Your task to perform on an android device: install app "Walmart Shopping & Grocery" Image 0: 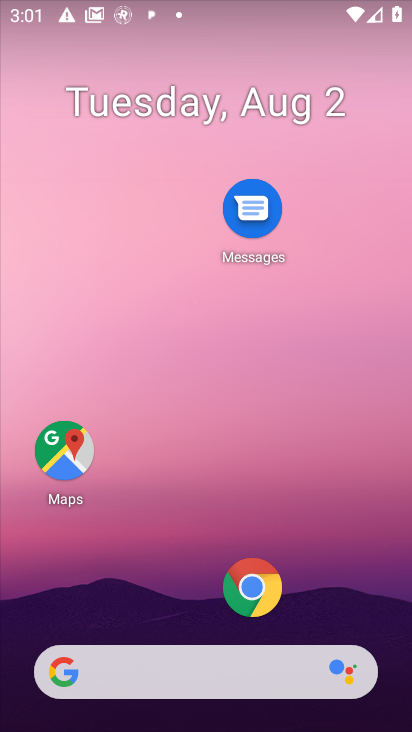
Step 0: drag from (193, 613) to (219, 219)
Your task to perform on an android device: install app "Walmart Shopping & Grocery" Image 1: 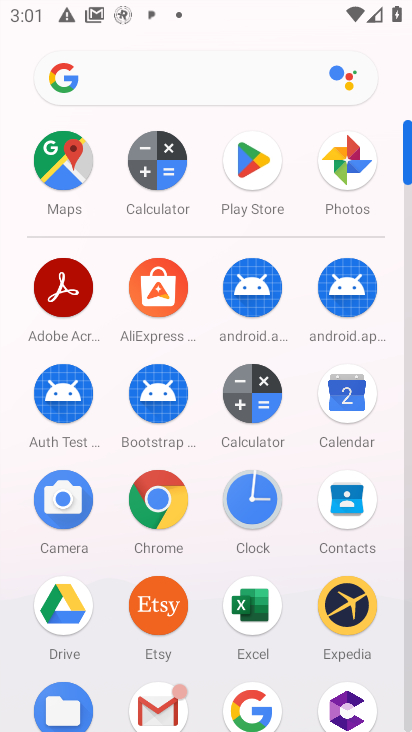
Step 1: click (247, 179)
Your task to perform on an android device: install app "Walmart Shopping & Grocery" Image 2: 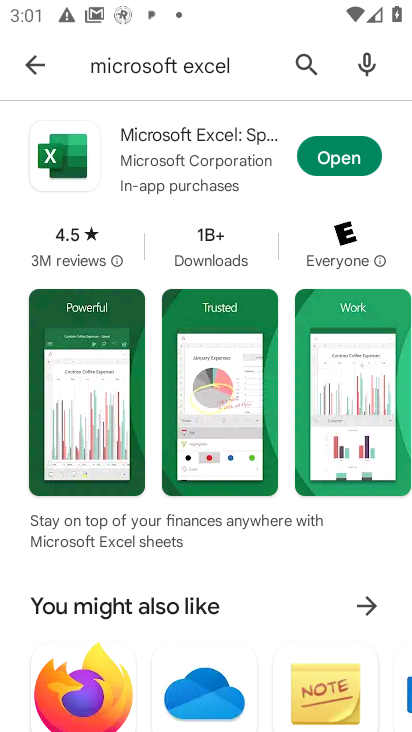
Step 2: click (293, 54)
Your task to perform on an android device: install app "Walmart Shopping & Grocery" Image 3: 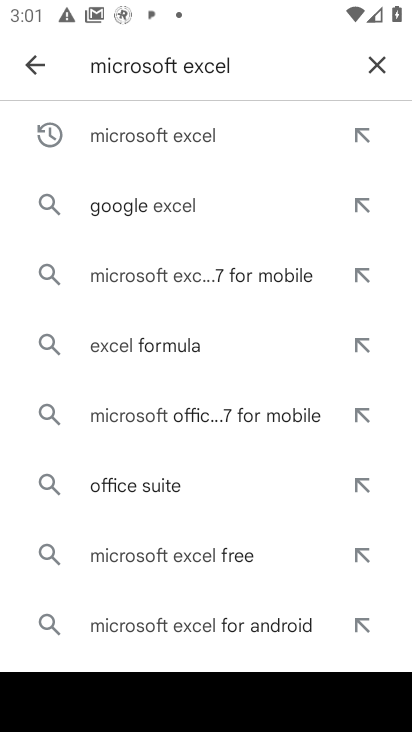
Step 3: click (365, 63)
Your task to perform on an android device: install app "Walmart Shopping & Grocery" Image 4: 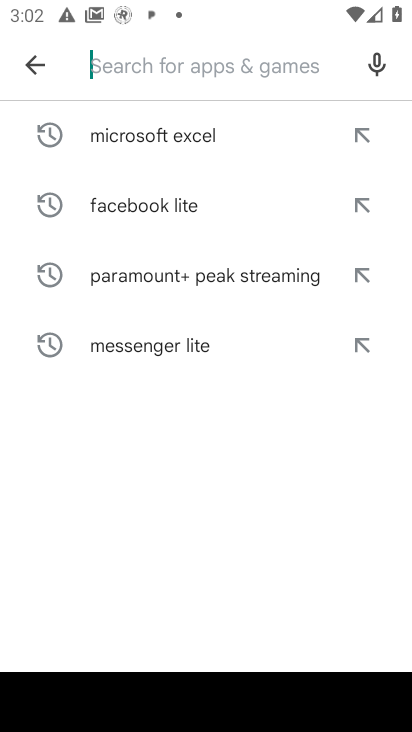
Step 4: type "Walmart Shopping & Grocery"
Your task to perform on an android device: install app "Walmart Shopping & Grocery" Image 5: 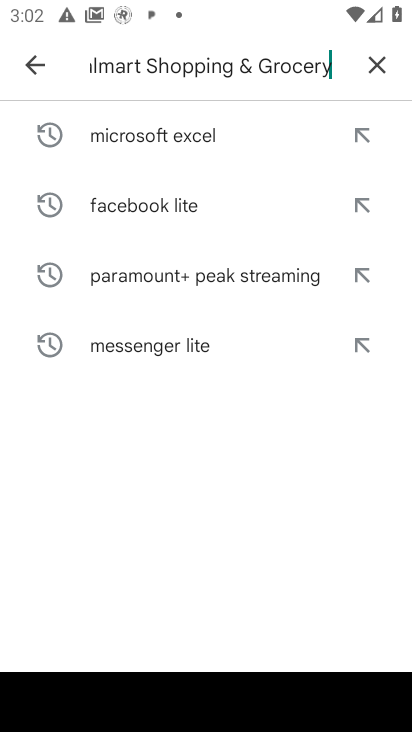
Step 5: type ""
Your task to perform on an android device: install app "Walmart Shopping & Grocery" Image 6: 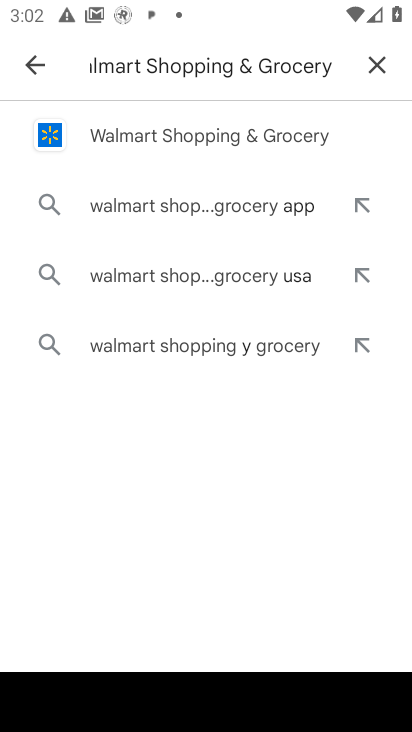
Step 6: click (163, 131)
Your task to perform on an android device: install app "Walmart Shopping & Grocery" Image 7: 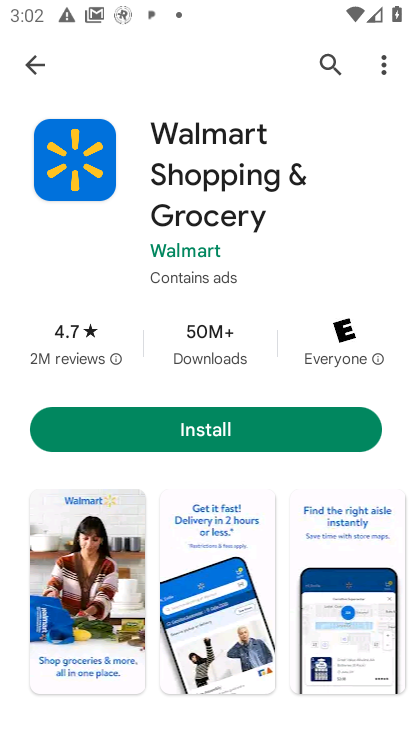
Step 7: click (211, 441)
Your task to perform on an android device: install app "Walmart Shopping & Grocery" Image 8: 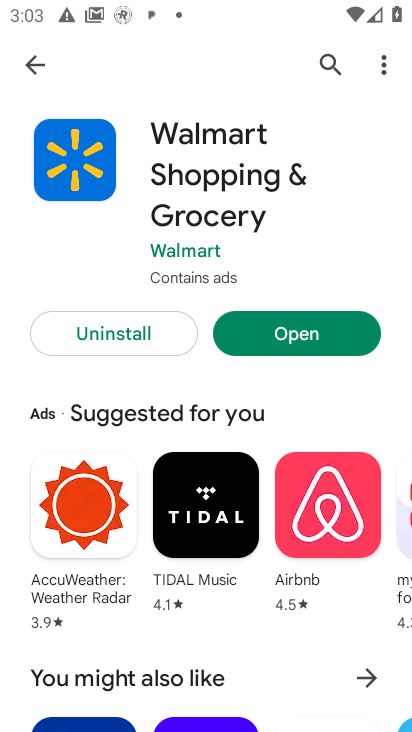
Step 8: task complete